Your task to perform on an android device: Search for the best rated circular saw on Lowes.com Image 0: 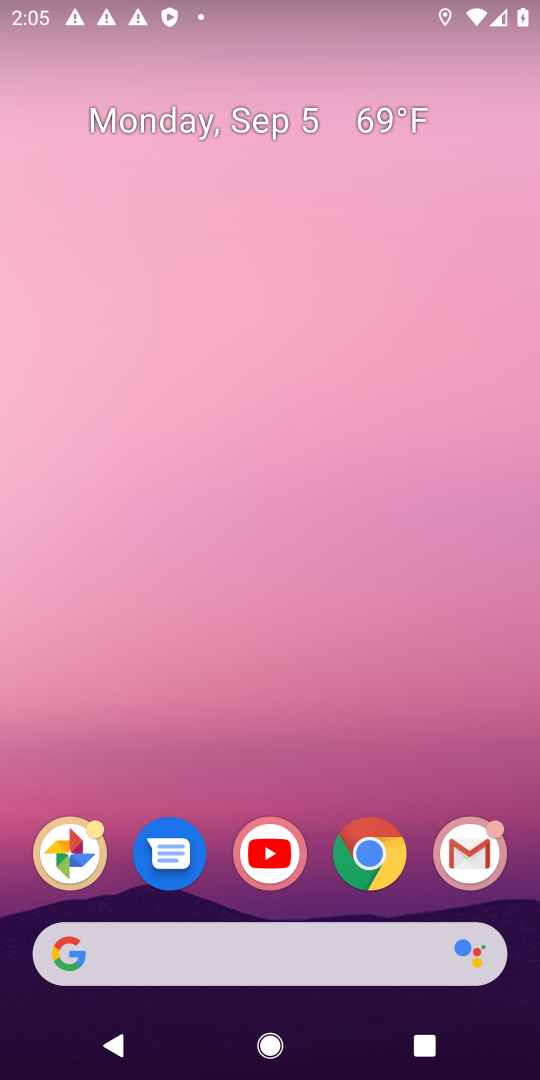
Step 0: drag from (209, 311) to (209, 185)
Your task to perform on an android device: Search for the best rated circular saw on Lowes.com Image 1: 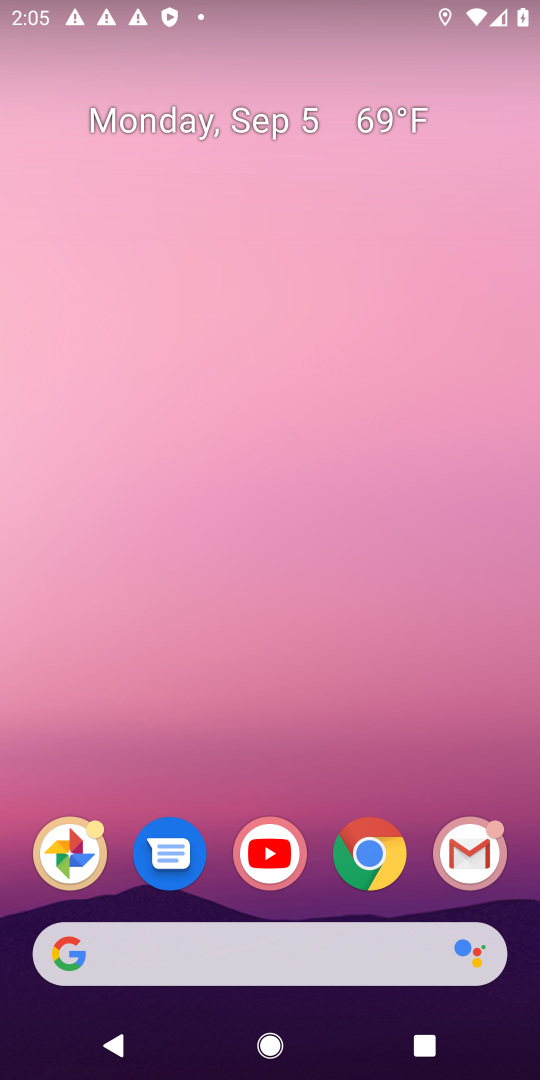
Step 1: drag from (214, 868) to (263, 127)
Your task to perform on an android device: Search for the best rated circular saw on Lowes.com Image 2: 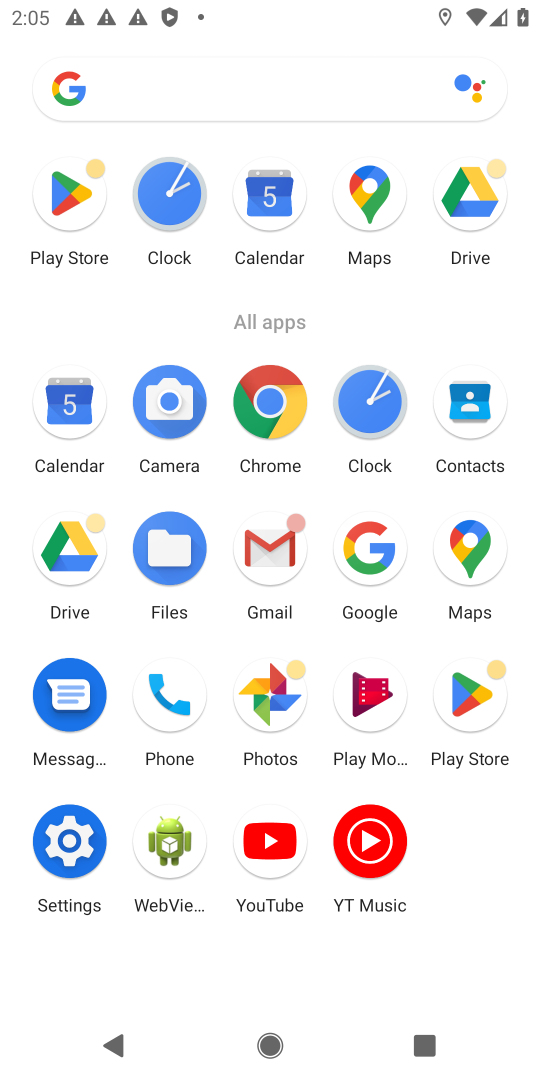
Step 2: click (349, 553)
Your task to perform on an android device: Search for the best rated circular saw on Lowes.com Image 3: 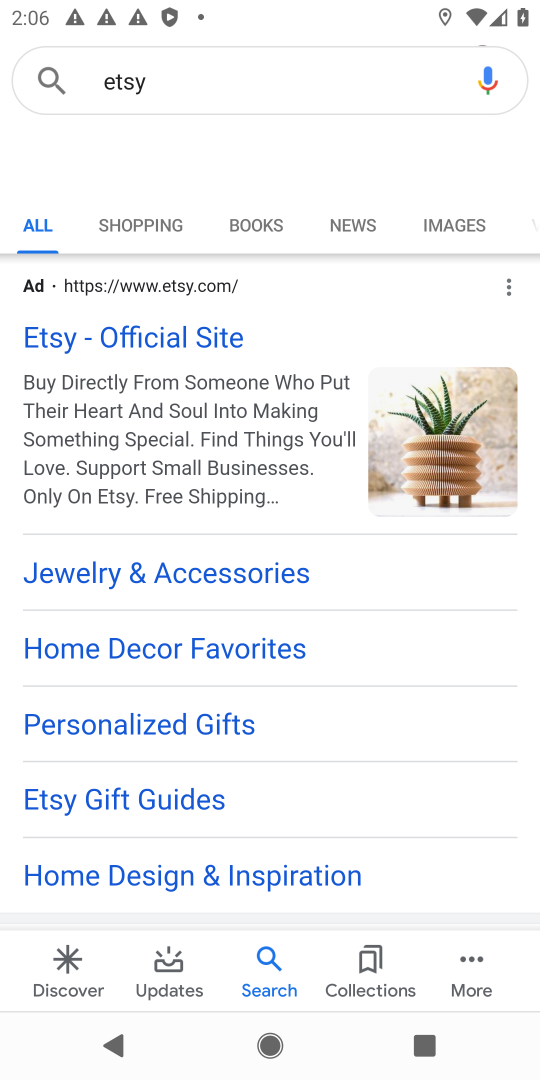
Step 3: click (171, 74)
Your task to perform on an android device: Search for the best rated circular saw on Lowes.com Image 4: 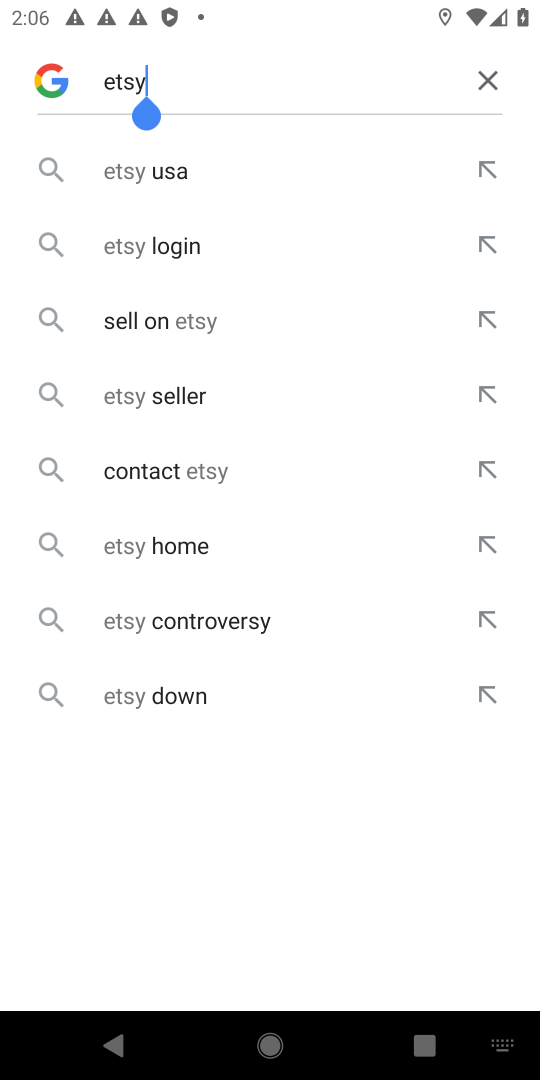
Step 4: click (489, 73)
Your task to perform on an android device: Search for the best rated circular saw on Lowes.com Image 5: 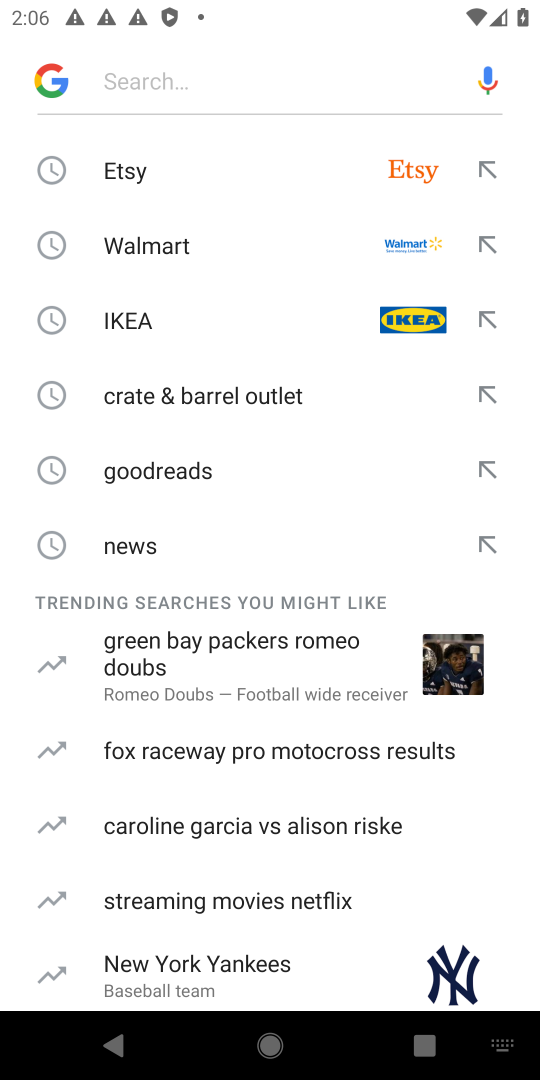
Step 5: type "Lowes.com"
Your task to perform on an android device: Search for the best rated circular saw on Lowes.com Image 6: 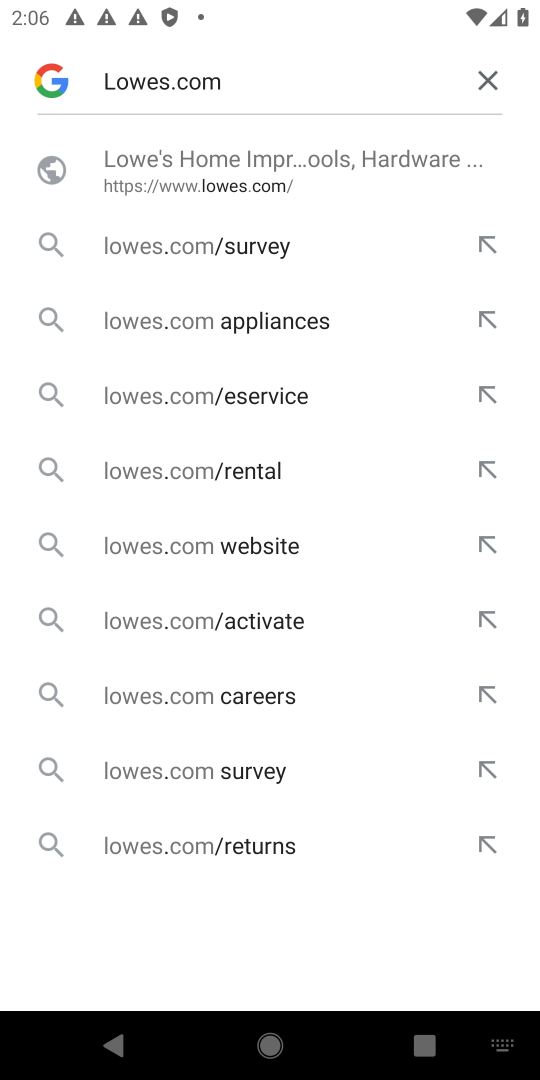
Step 6: click (172, 168)
Your task to perform on an android device: Search for the best rated circular saw on Lowes.com Image 7: 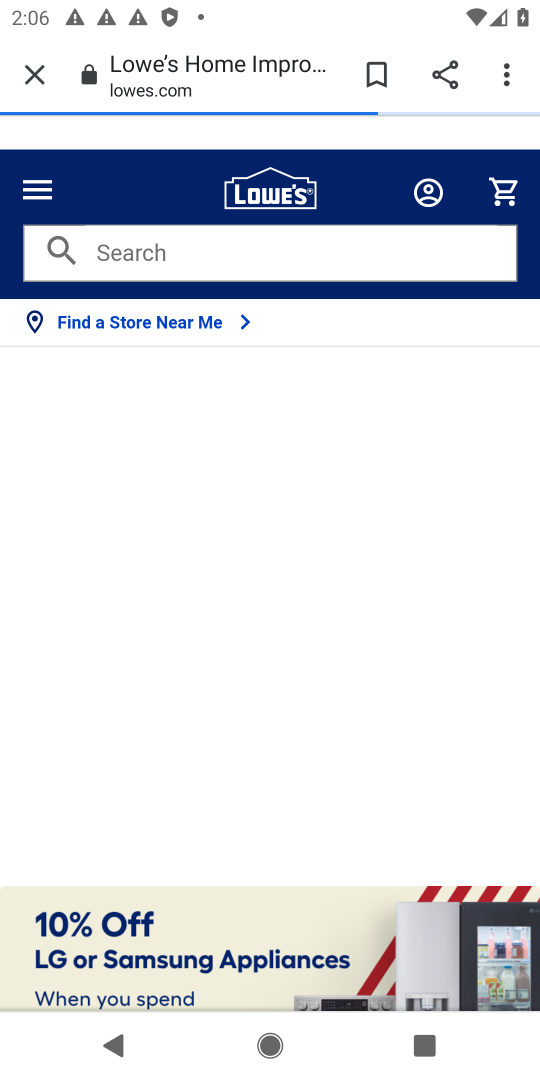
Step 7: click (211, 243)
Your task to perform on an android device: Search for the best rated circular saw on Lowes.com Image 8: 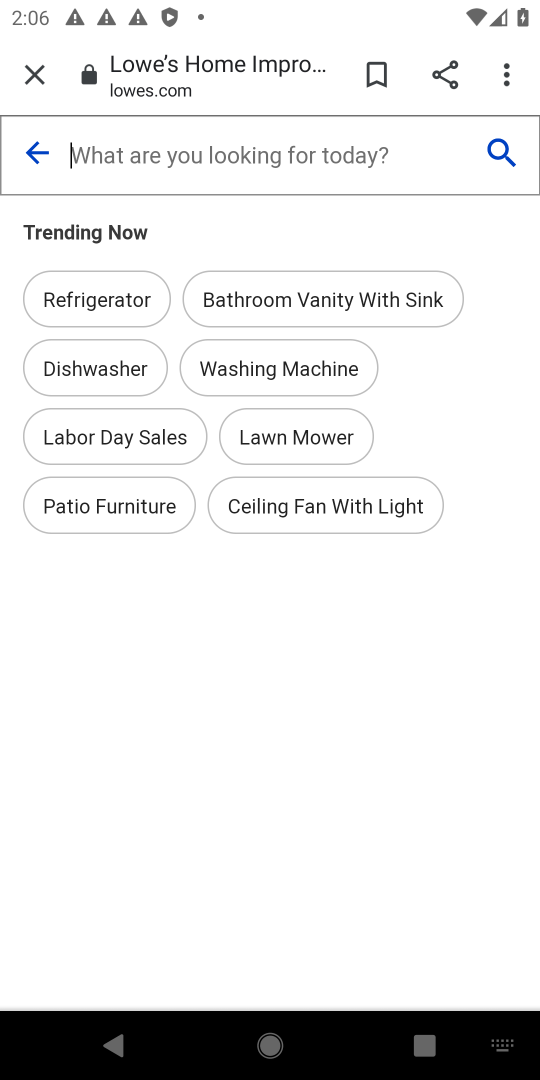
Step 8: type "best rated circular saw"
Your task to perform on an android device: Search for the best rated circular saw on Lowes.com Image 9: 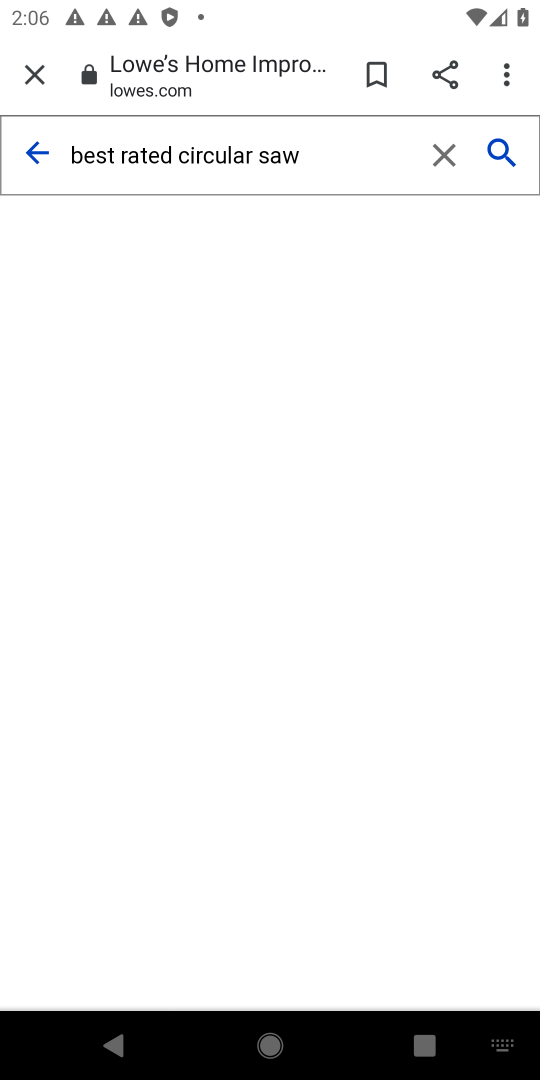
Step 9: click (497, 149)
Your task to perform on an android device: Search for the best rated circular saw on Lowes.com Image 10: 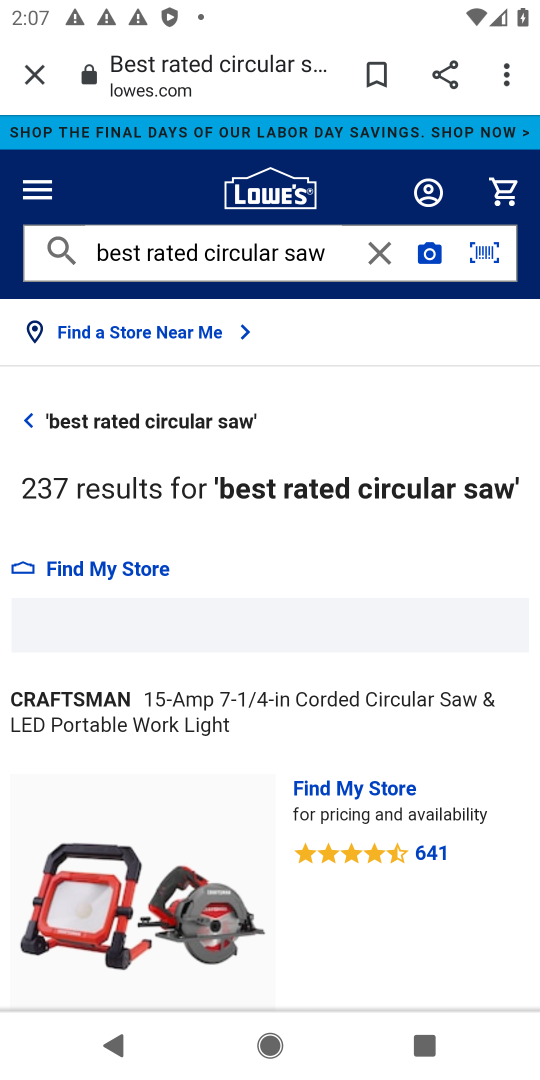
Step 10: task complete